Your task to perform on an android device: Open Google Chrome and open the bookmarks view Image 0: 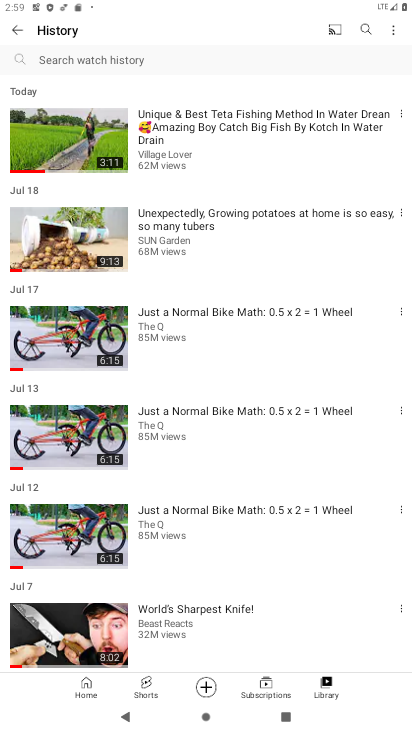
Step 0: drag from (181, 627) to (177, 9)
Your task to perform on an android device: Open Google Chrome and open the bookmarks view Image 1: 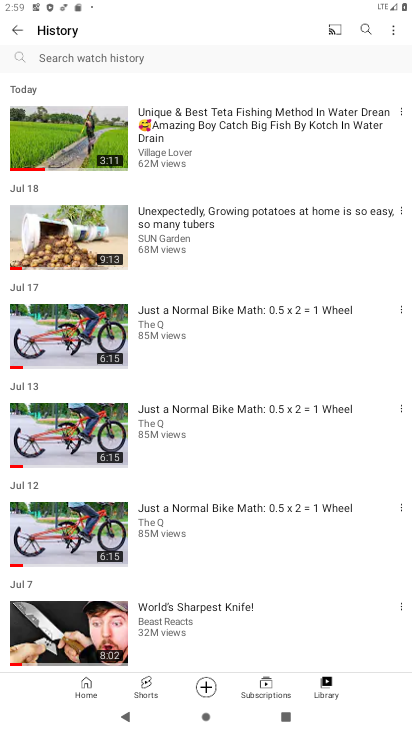
Step 1: press home button
Your task to perform on an android device: Open Google Chrome and open the bookmarks view Image 2: 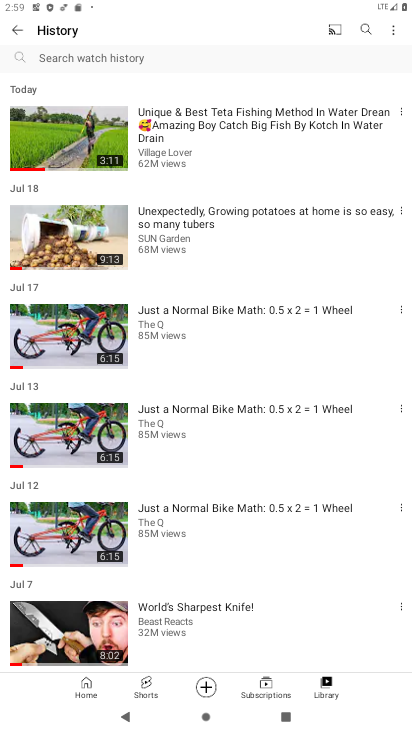
Step 2: drag from (220, 525) to (245, 41)
Your task to perform on an android device: Open Google Chrome and open the bookmarks view Image 3: 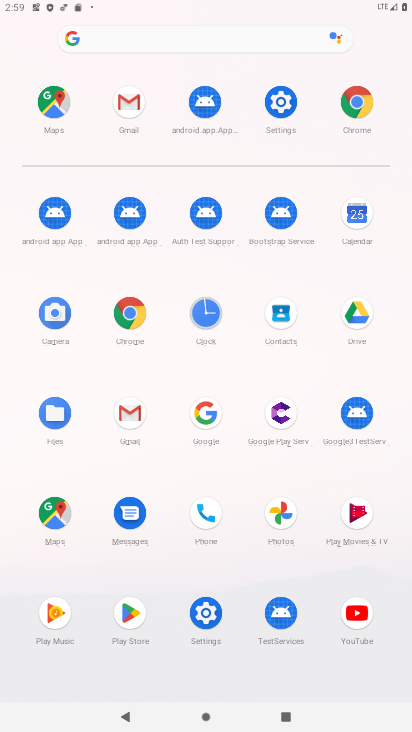
Step 3: click (125, 315)
Your task to perform on an android device: Open Google Chrome and open the bookmarks view Image 4: 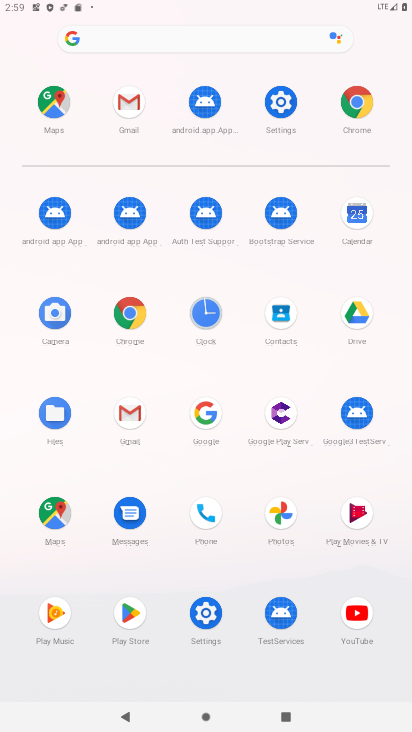
Step 4: click (125, 315)
Your task to perform on an android device: Open Google Chrome and open the bookmarks view Image 5: 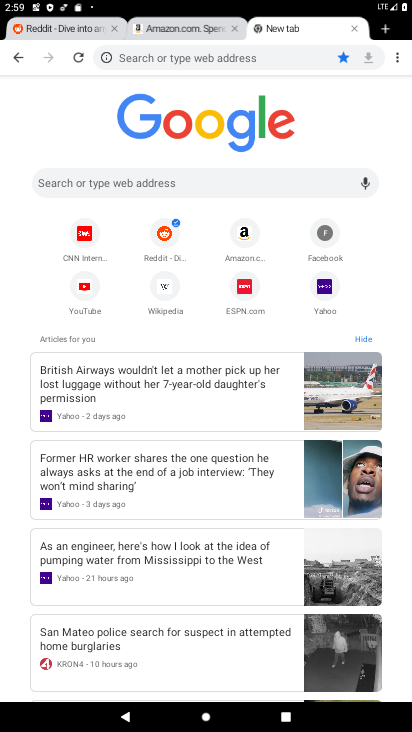
Step 5: task complete